Your task to perform on an android device: turn pop-ups off in chrome Image 0: 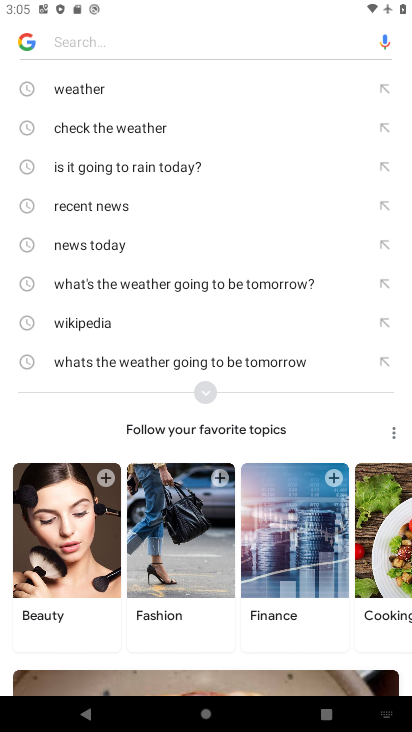
Step 0: press home button
Your task to perform on an android device: turn pop-ups off in chrome Image 1: 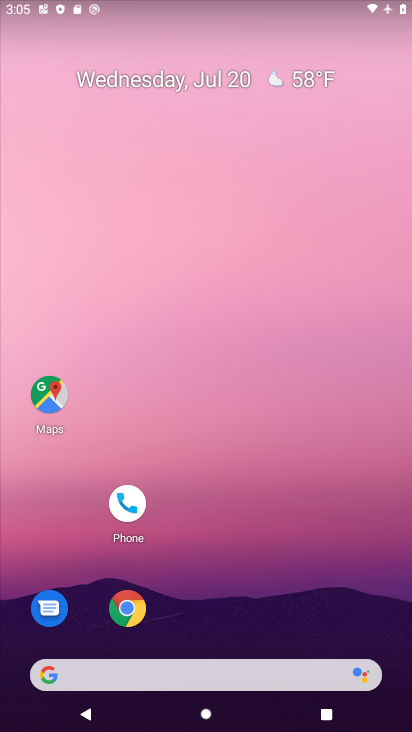
Step 1: drag from (303, 553) to (269, 146)
Your task to perform on an android device: turn pop-ups off in chrome Image 2: 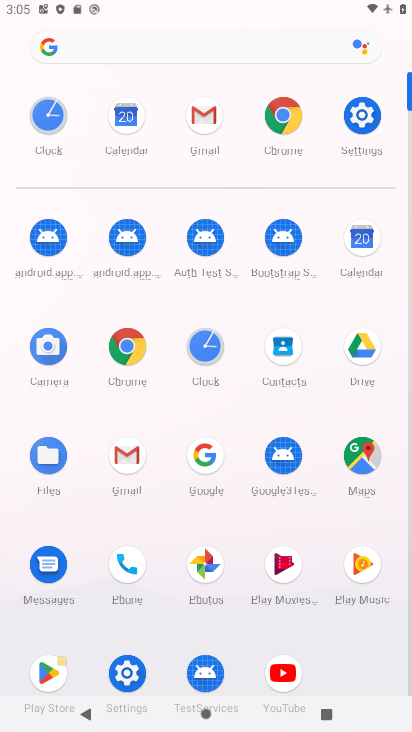
Step 2: click (283, 110)
Your task to perform on an android device: turn pop-ups off in chrome Image 3: 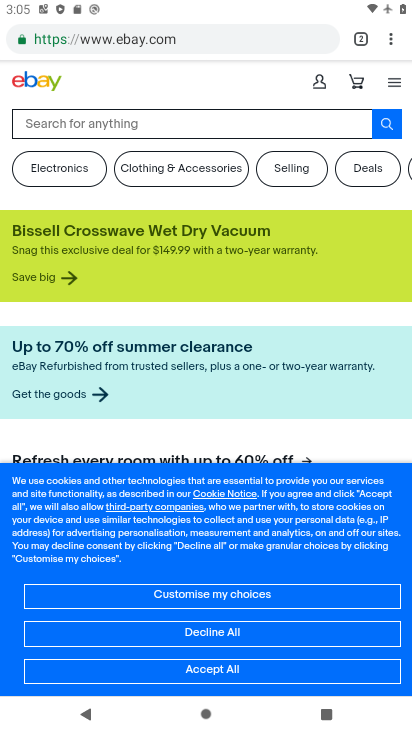
Step 3: drag from (387, 35) to (253, 474)
Your task to perform on an android device: turn pop-ups off in chrome Image 4: 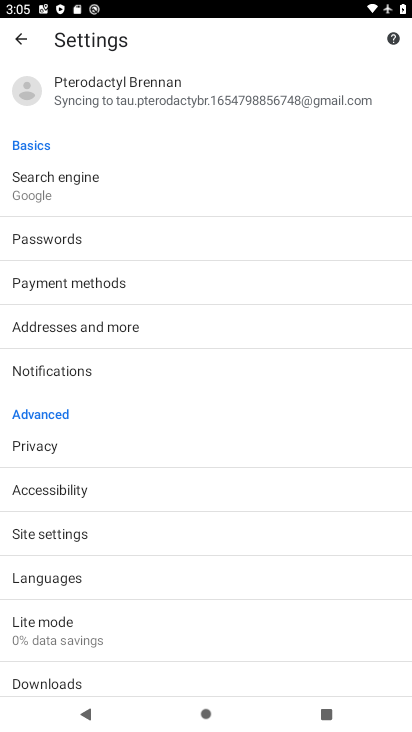
Step 4: click (76, 535)
Your task to perform on an android device: turn pop-ups off in chrome Image 5: 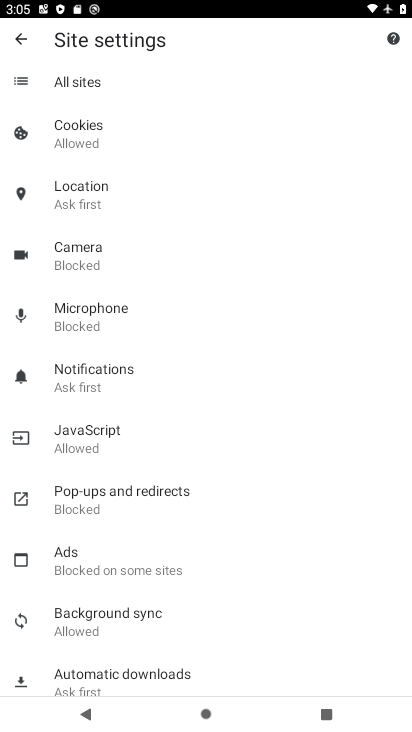
Step 5: click (121, 496)
Your task to perform on an android device: turn pop-ups off in chrome Image 6: 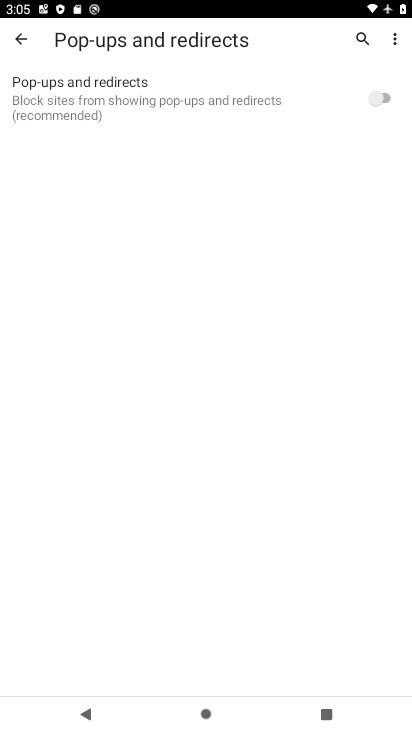
Step 6: task complete